Your task to perform on an android device: open chrome and create a bookmark for the current page Image 0: 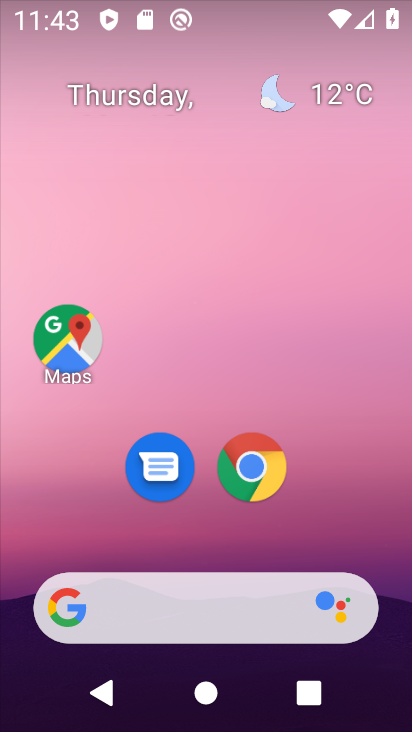
Step 0: drag from (377, 417) to (400, 91)
Your task to perform on an android device: open chrome and create a bookmark for the current page Image 1: 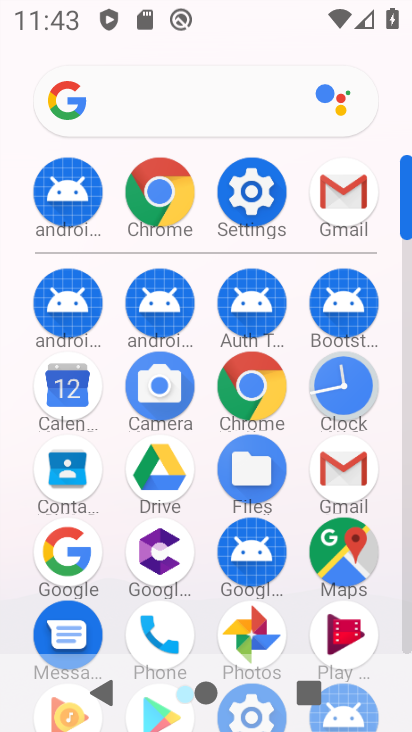
Step 1: click (159, 196)
Your task to perform on an android device: open chrome and create a bookmark for the current page Image 2: 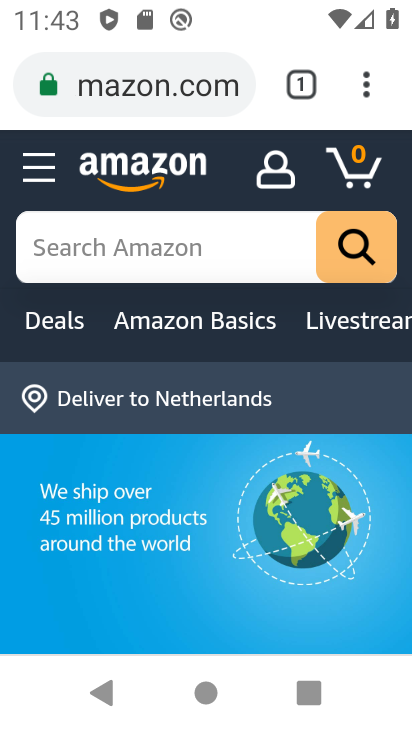
Step 2: task complete